Your task to perform on an android device: open sync settings in chrome Image 0: 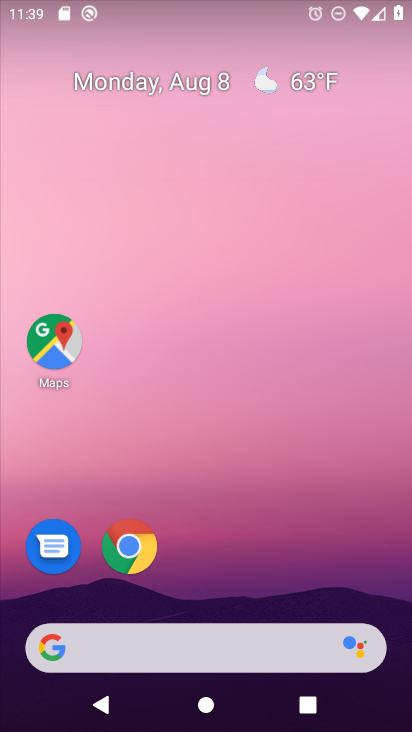
Step 0: press home button
Your task to perform on an android device: open sync settings in chrome Image 1: 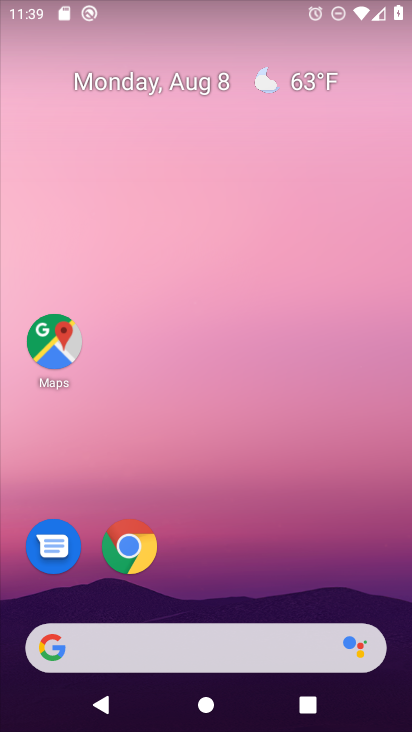
Step 1: click (125, 540)
Your task to perform on an android device: open sync settings in chrome Image 2: 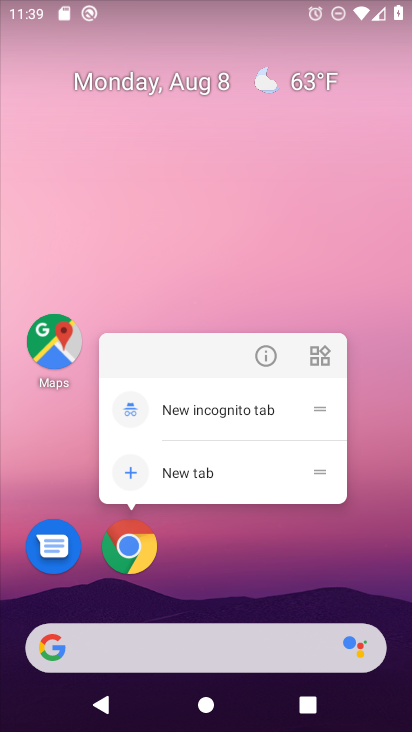
Step 2: click (125, 540)
Your task to perform on an android device: open sync settings in chrome Image 3: 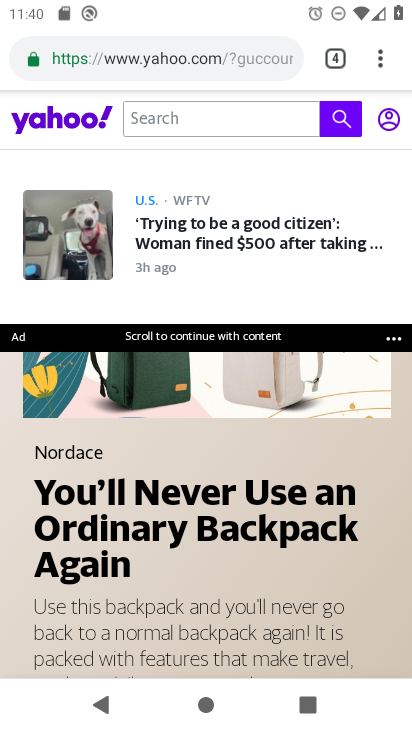
Step 3: click (378, 54)
Your task to perform on an android device: open sync settings in chrome Image 4: 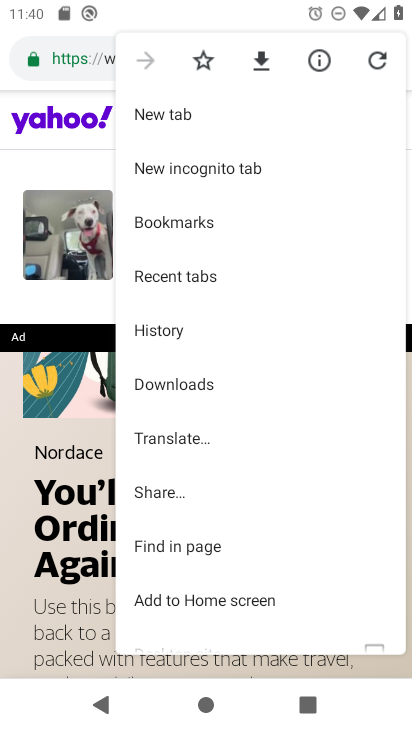
Step 4: drag from (235, 578) to (259, 47)
Your task to perform on an android device: open sync settings in chrome Image 5: 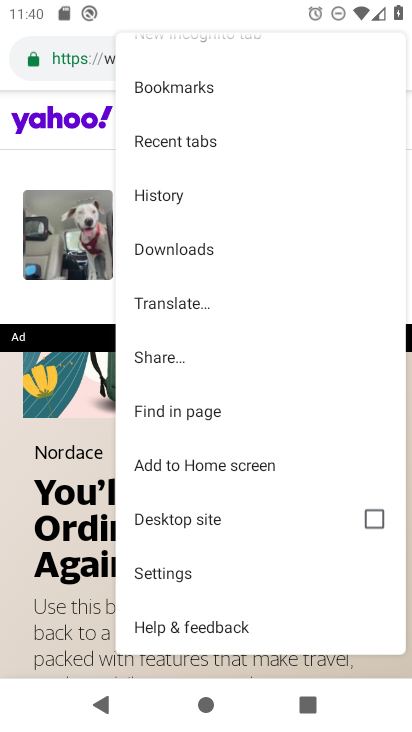
Step 5: click (201, 569)
Your task to perform on an android device: open sync settings in chrome Image 6: 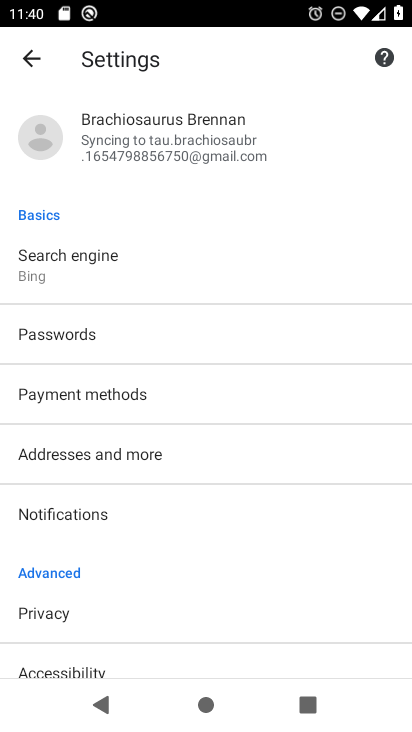
Step 6: drag from (209, 647) to (247, 196)
Your task to perform on an android device: open sync settings in chrome Image 7: 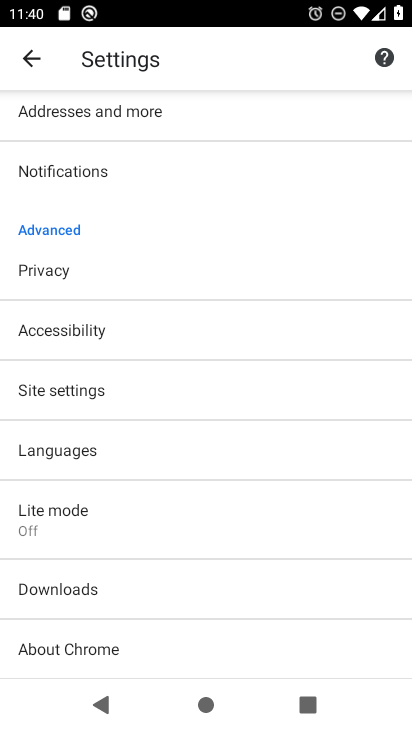
Step 7: click (129, 384)
Your task to perform on an android device: open sync settings in chrome Image 8: 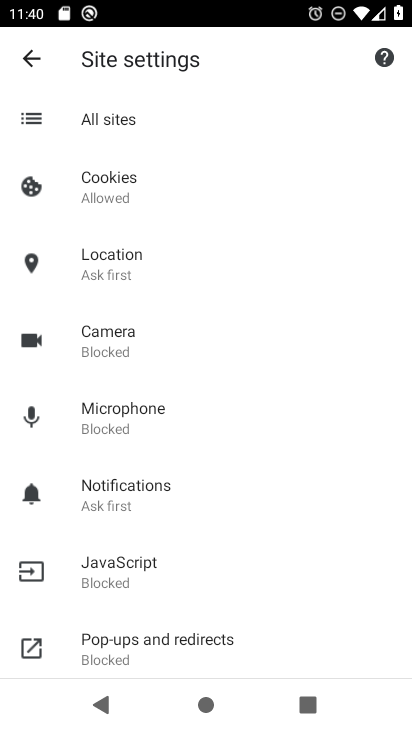
Step 8: click (19, 64)
Your task to perform on an android device: open sync settings in chrome Image 9: 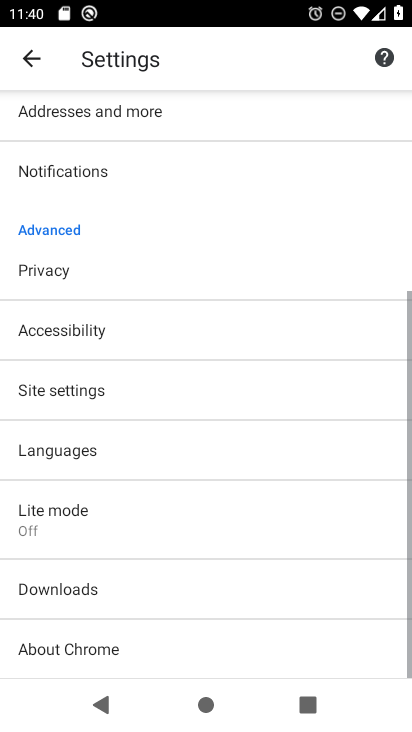
Step 9: drag from (207, 155) to (170, 656)
Your task to perform on an android device: open sync settings in chrome Image 10: 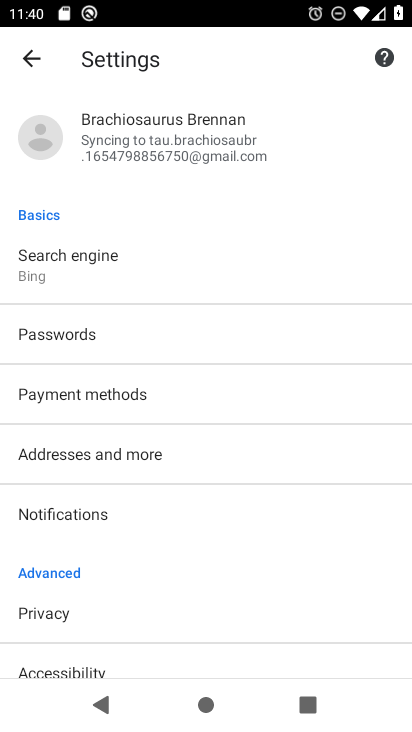
Step 10: click (159, 126)
Your task to perform on an android device: open sync settings in chrome Image 11: 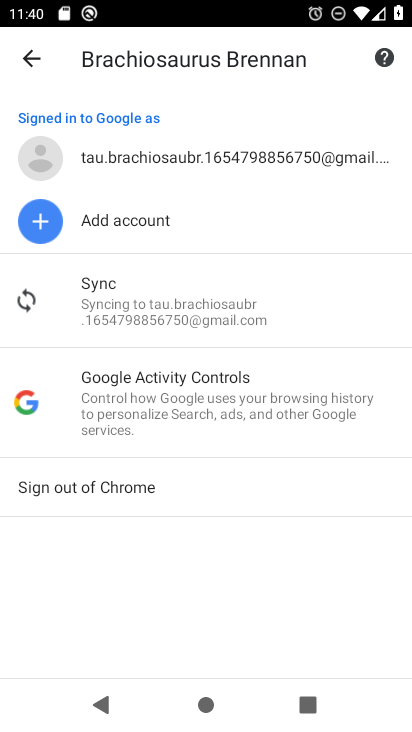
Step 11: click (62, 315)
Your task to perform on an android device: open sync settings in chrome Image 12: 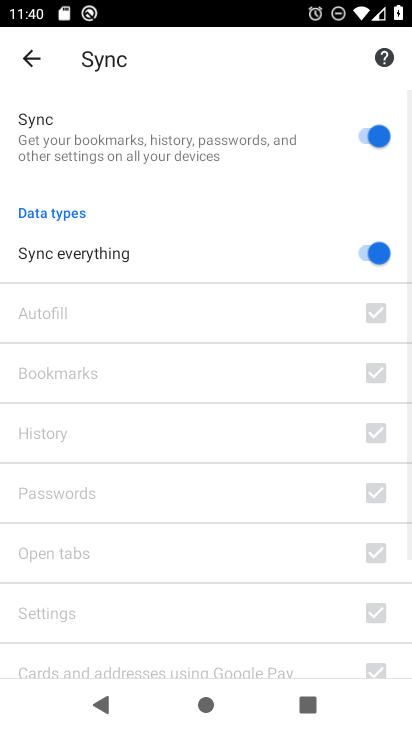
Step 12: task complete